Your task to perform on an android device: turn off javascript in the chrome app Image 0: 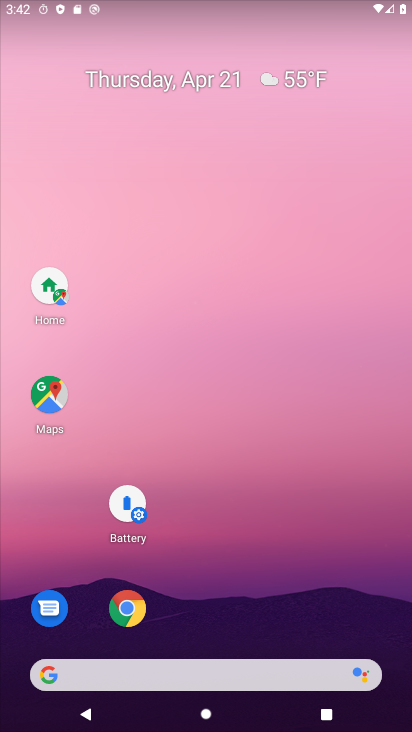
Step 0: drag from (332, 397) to (344, 114)
Your task to perform on an android device: turn off javascript in the chrome app Image 1: 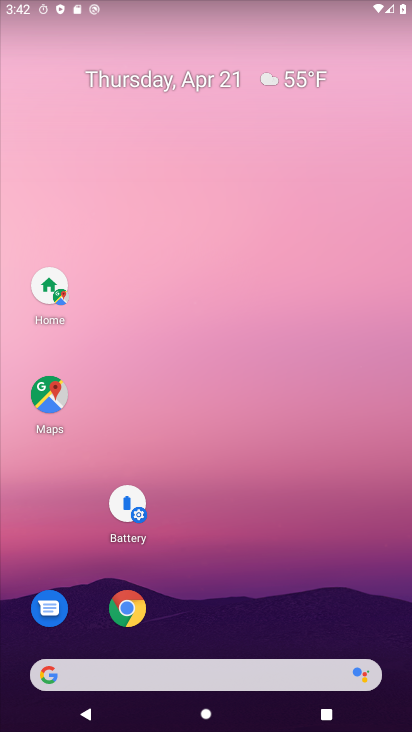
Step 1: drag from (261, 412) to (269, 83)
Your task to perform on an android device: turn off javascript in the chrome app Image 2: 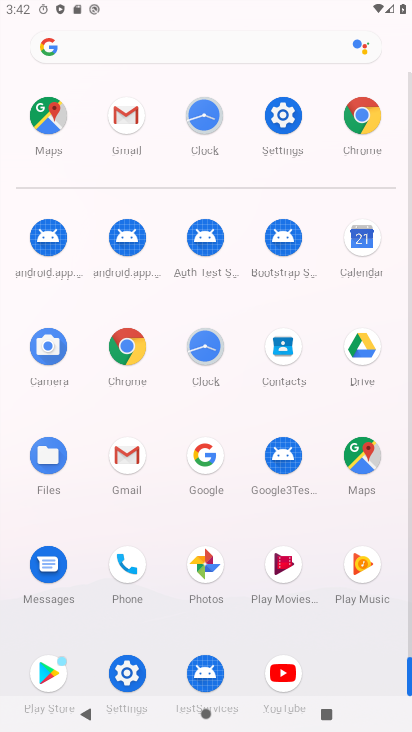
Step 2: click (349, 123)
Your task to perform on an android device: turn off javascript in the chrome app Image 3: 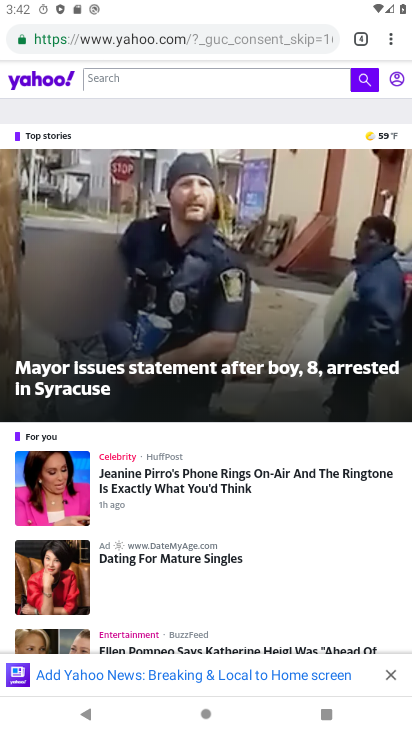
Step 3: drag from (393, 39) to (334, 517)
Your task to perform on an android device: turn off javascript in the chrome app Image 4: 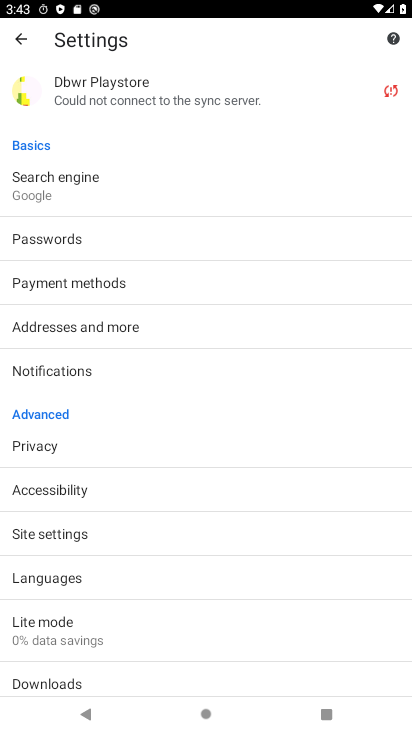
Step 4: click (85, 537)
Your task to perform on an android device: turn off javascript in the chrome app Image 5: 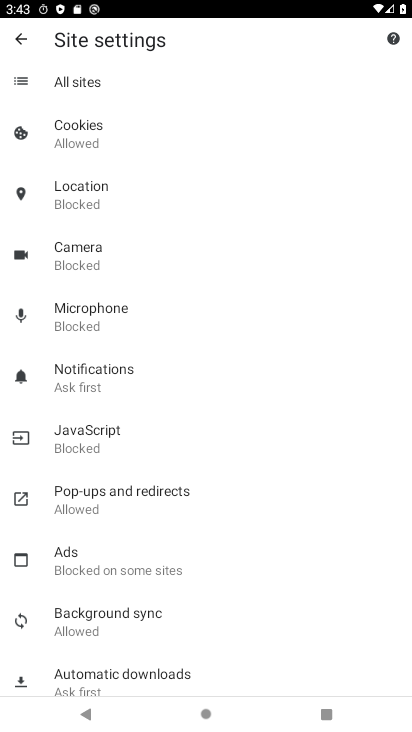
Step 5: click (66, 457)
Your task to perform on an android device: turn off javascript in the chrome app Image 6: 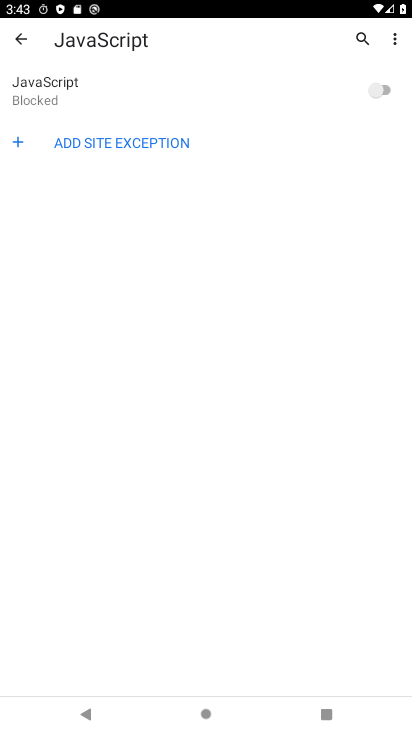
Step 6: task complete